Your task to perform on an android device: turn off translation in the chrome app Image 0: 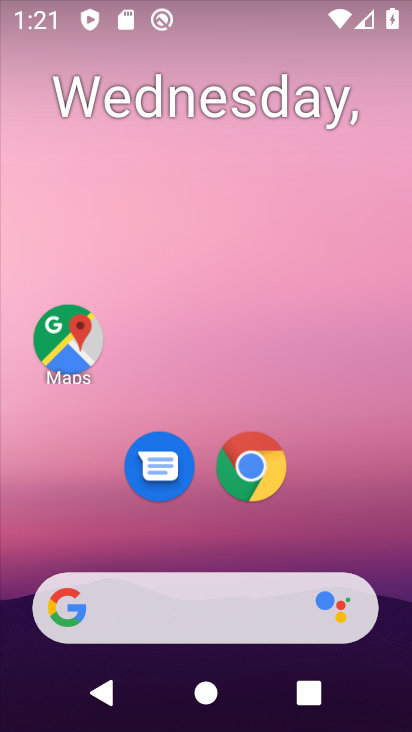
Step 0: click (264, 468)
Your task to perform on an android device: turn off translation in the chrome app Image 1: 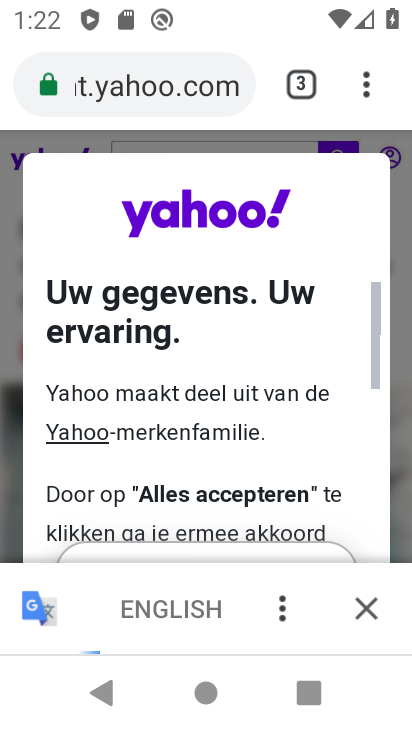
Step 1: click (357, 98)
Your task to perform on an android device: turn off translation in the chrome app Image 2: 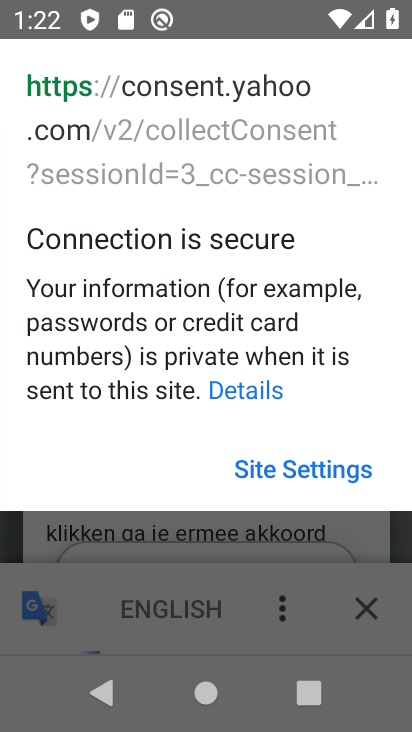
Step 2: press back button
Your task to perform on an android device: turn off translation in the chrome app Image 3: 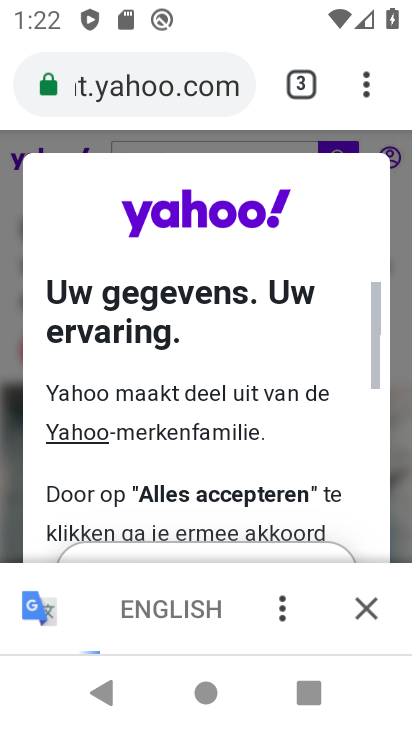
Step 3: click (372, 76)
Your task to perform on an android device: turn off translation in the chrome app Image 4: 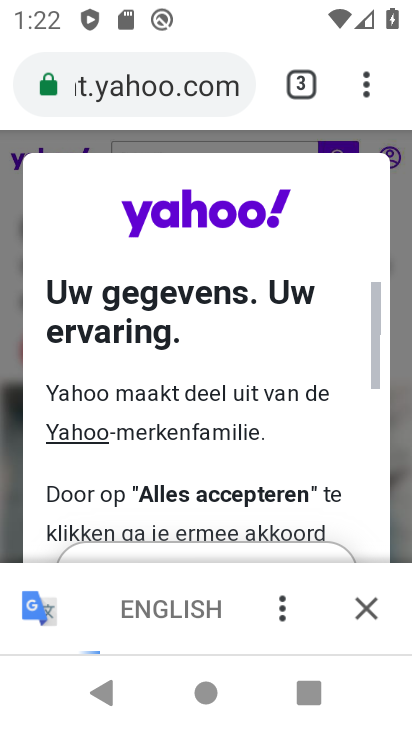
Step 4: click (367, 97)
Your task to perform on an android device: turn off translation in the chrome app Image 5: 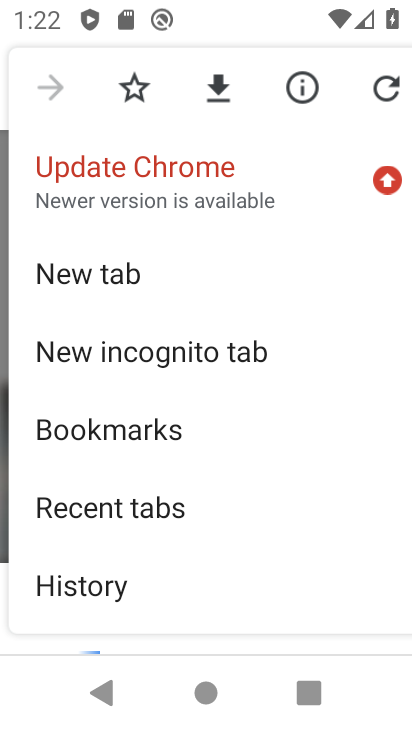
Step 5: drag from (183, 516) to (186, 130)
Your task to perform on an android device: turn off translation in the chrome app Image 6: 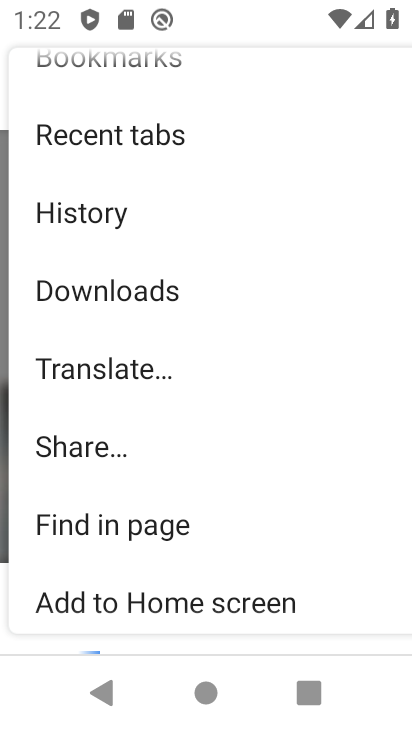
Step 6: drag from (126, 553) to (190, 139)
Your task to perform on an android device: turn off translation in the chrome app Image 7: 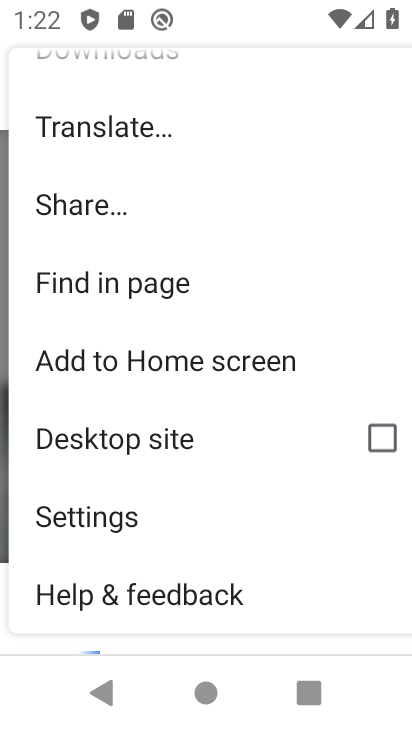
Step 7: click (104, 511)
Your task to perform on an android device: turn off translation in the chrome app Image 8: 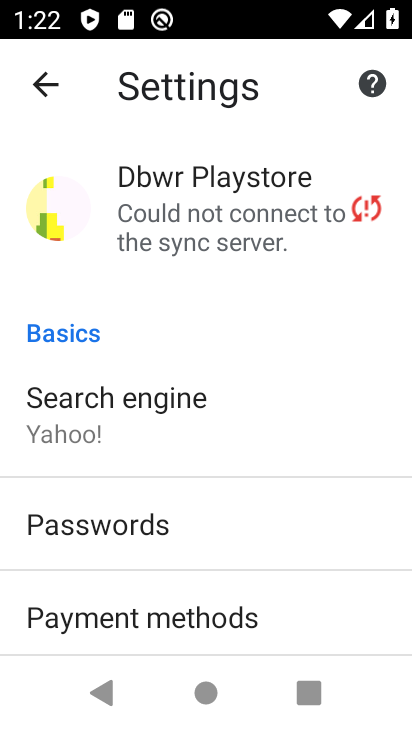
Step 8: drag from (147, 589) to (261, 127)
Your task to perform on an android device: turn off translation in the chrome app Image 9: 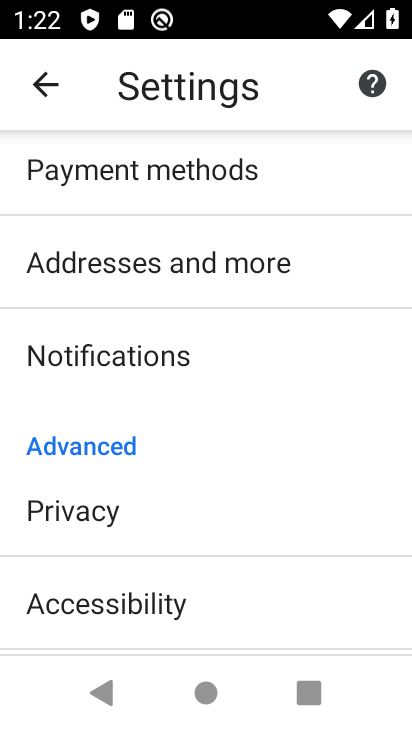
Step 9: drag from (79, 622) to (187, 83)
Your task to perform on an android device: turn off translation in the chrome app Image 10: 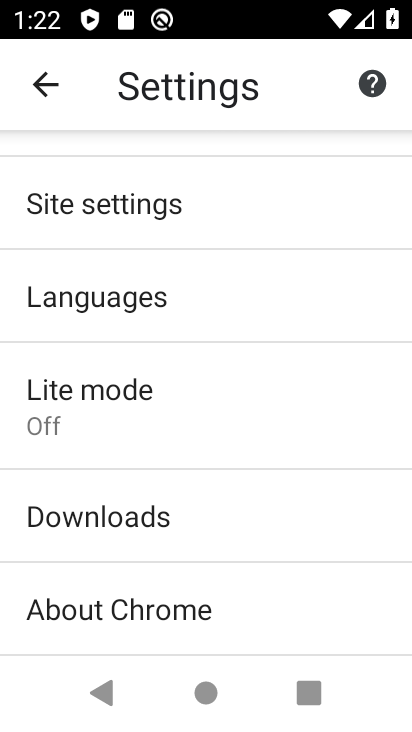
Step 10: click (70, 325)
Your task to perform on an android device: turn off translation in the chrome app Image 11: 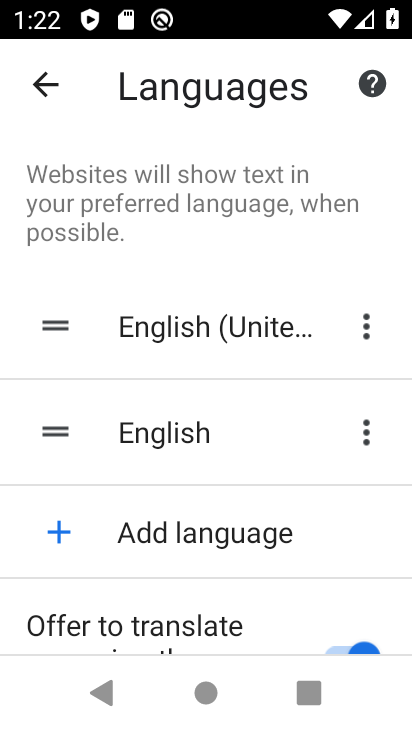
Step 11: click (356, 651)
Your task to perform on an android device: turn off translation in the chrome app Image 12: 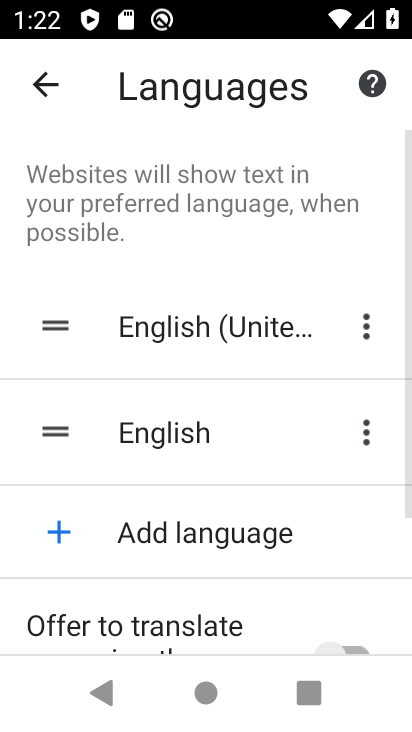
Step 12: task complete